Your task to perform on an android device: add a contact Image 0: 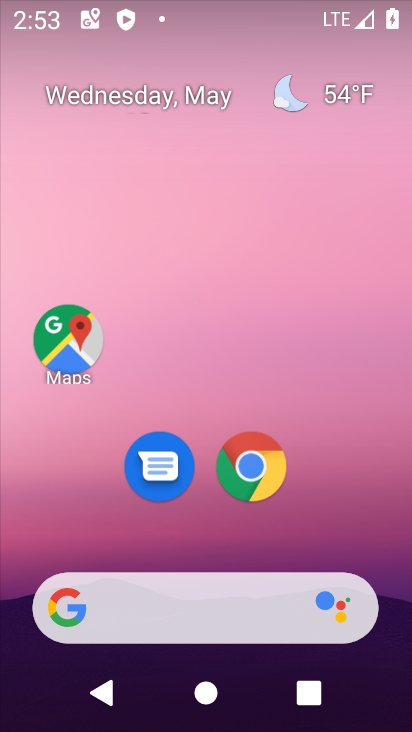
Step 0: drag from (318, 530) to (294, 144)
Your task to perform on an android device: add a contact Image 1: 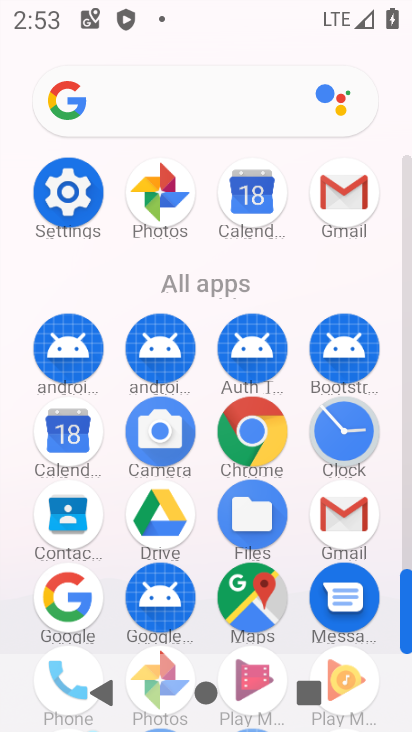
Step 1: click (60, 519)
Your task to perform on an android device: add a contact Image 2: 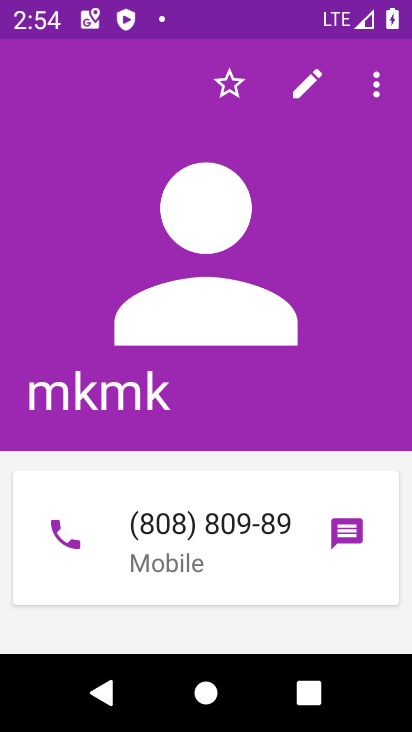
Step 2: press back button
Your task to perform on an android device: add a contact Image 3: 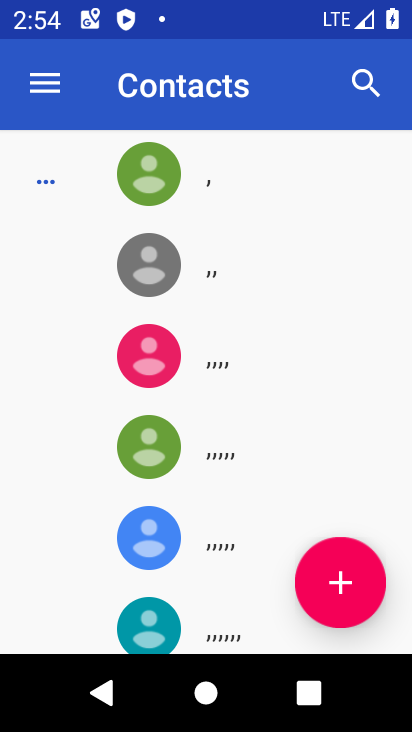
Step 3: click (326, 578)
Your task to perform on an android device: add a contact Image 4: 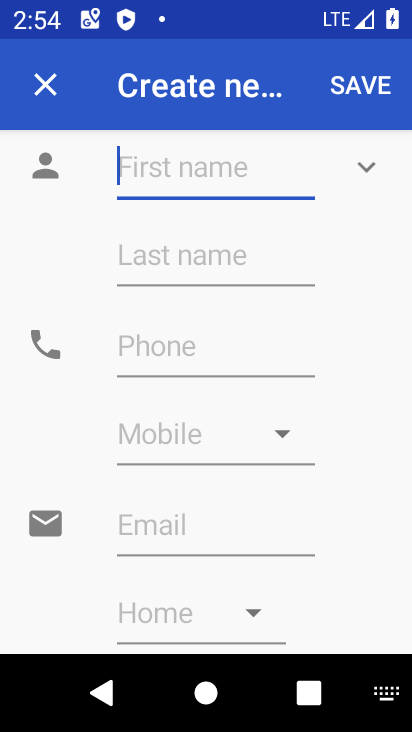
Step 4: click (170, 178)
Your task to perform on an android device: add a contact Image 5: 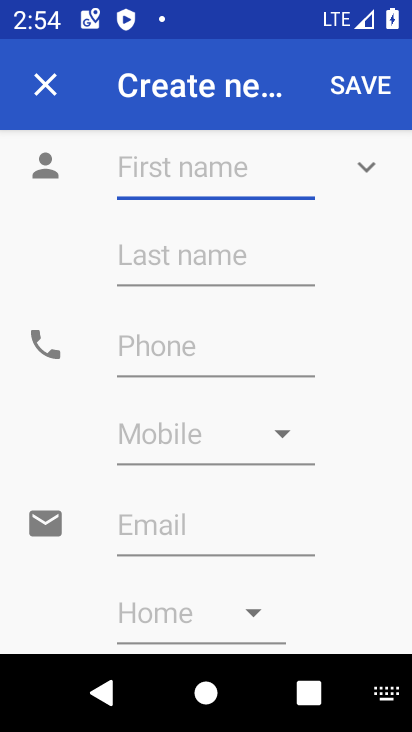
Step 5: type "fvg"
Your task to perform on an android device: add a contact Image 6: 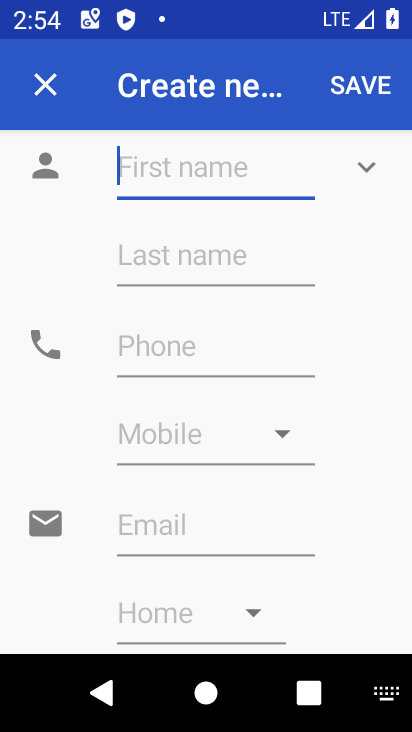
Step 6: click (357, 73)
Your task to perform on an android device: add a contact Image 7: 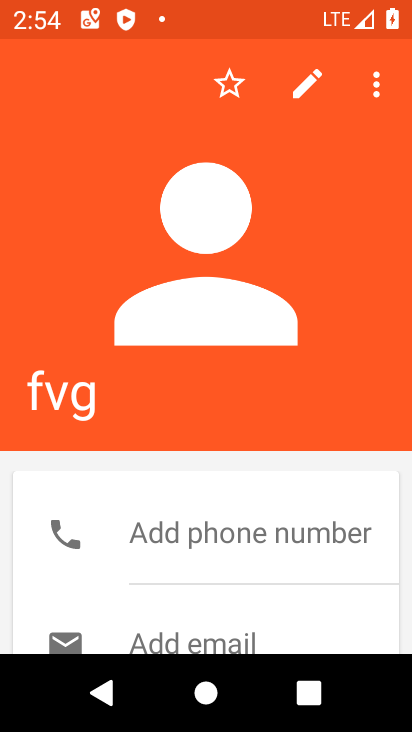
Step 7: task complete